Your task to perform on an android device: set the stopwatch Image 0: 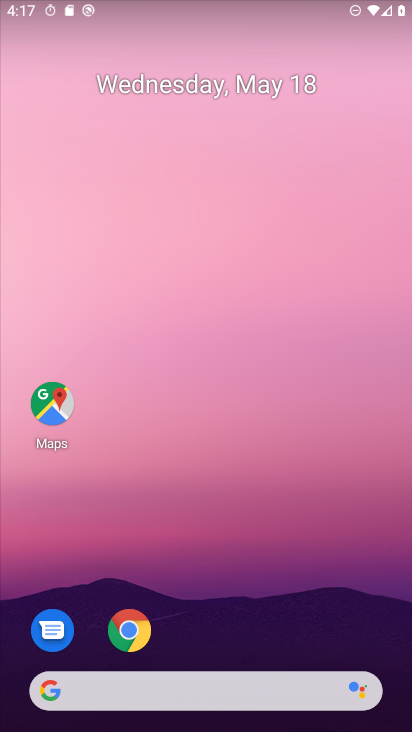
Step 0: press home button
Your task to perform on an android device: set the stopwatch Image 1: 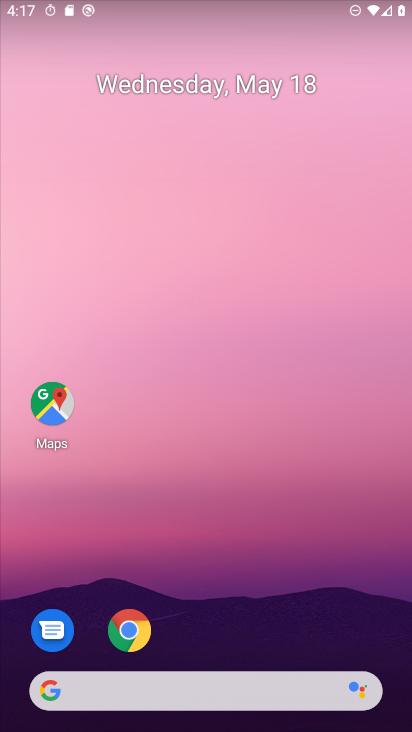
Step 1: drag from (209, 642) to (227, 54)
Your task to perform on an android device: set the stopwatch Image 2: 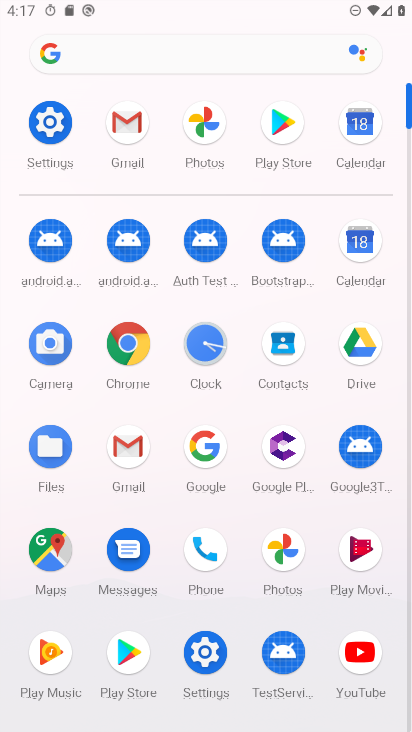
Step 2: click (199, 343)
Your task to perform on an android device: set the stopwatch Image 3: 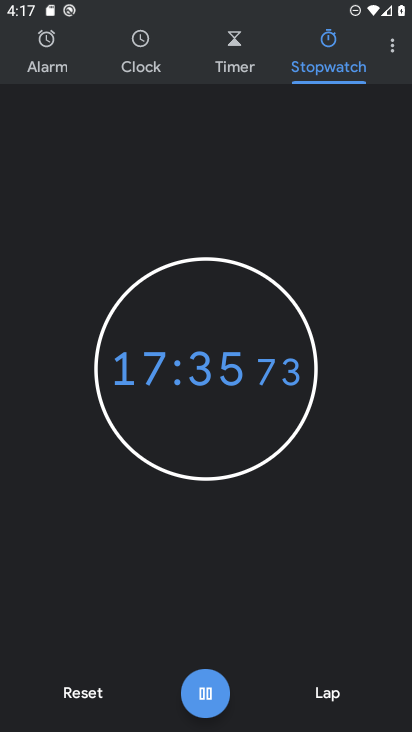
Step 3: click (95, 692)
Your task to perform on an android device: set the stopwatch Image 4: 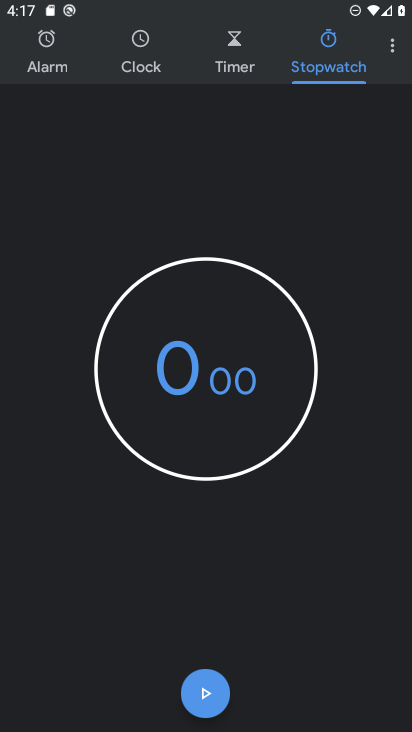
Step 4: click (201, 694)
Your task to perform on an android device: set the stopwatch Image 5: 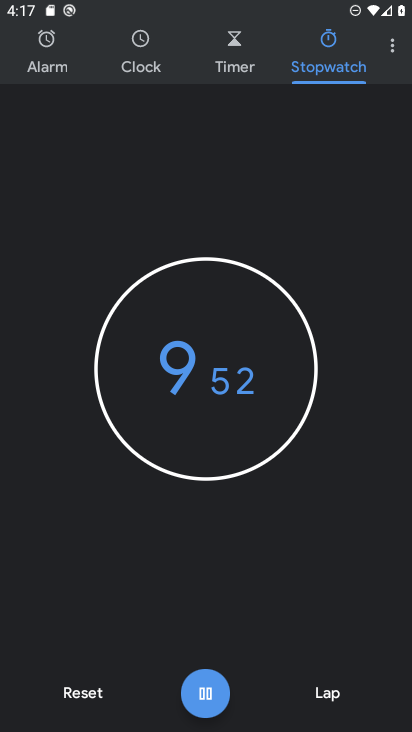
Step 5: task complete